Your task to perform on an android device: Go to Yahoo.com Image 0: 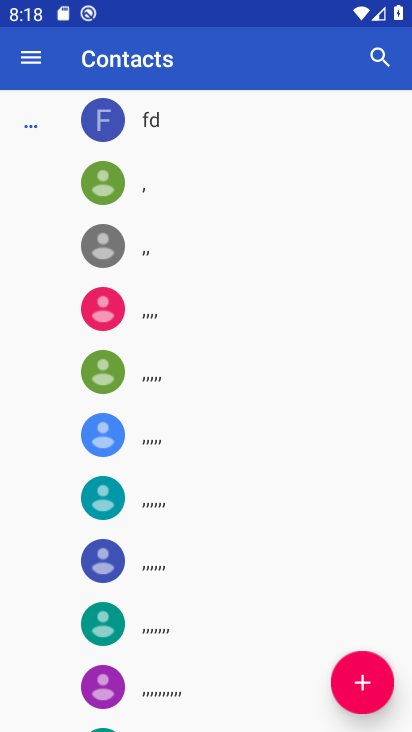
Step 0: press home button
Your task to perform on an android device: Go to Yahoo.com Image 1: 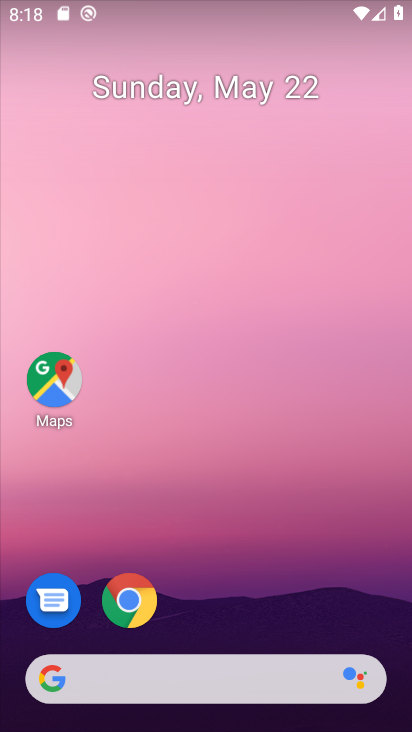
Step 1: drag from (226, 658) to (272, 277)
Your task to perform on an android device: Go to Yahoo.com Image 2: 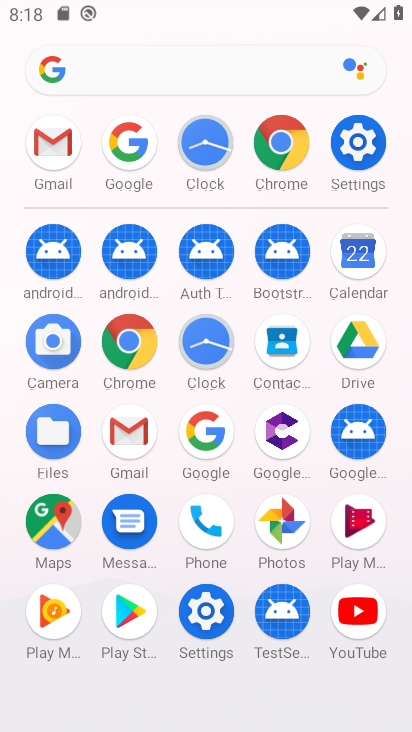
Step 2: click (281, 149)
Your task to perform on an android device: Go to Yahoo.com Image 3: 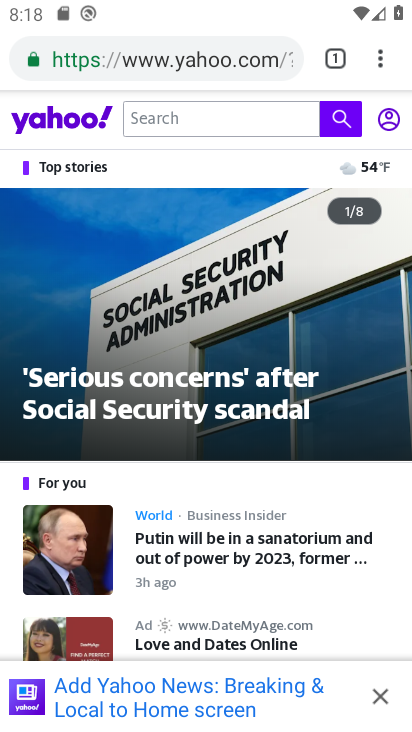
Step 3: task complete